Your task to perform on an android device: snooze an email in the gmail app Image 0: 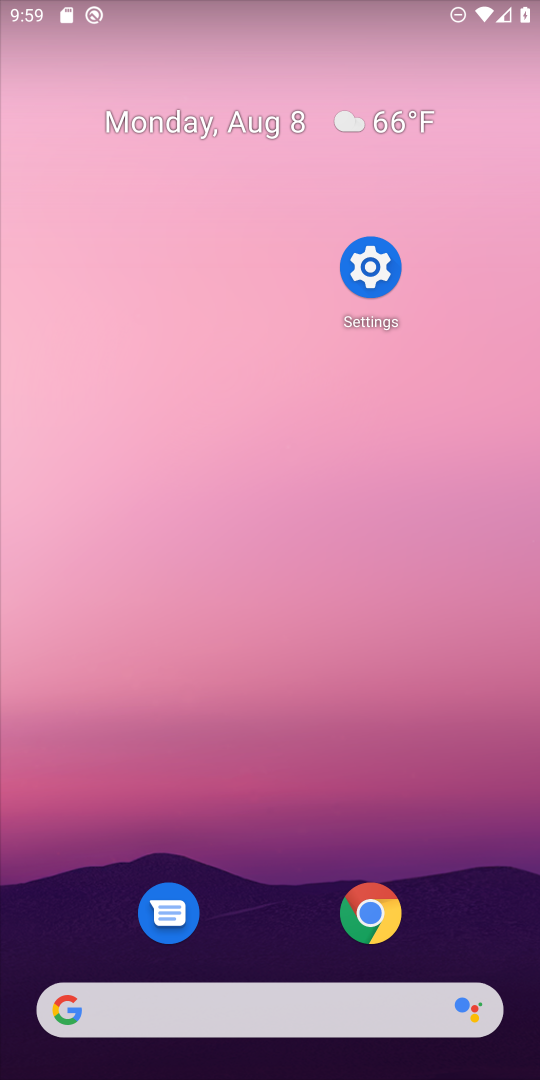
Step 0: drag from (291, 1002) to (252, 134)
Your task to perform on an android device: snooze an email in the gmail app Image 1: 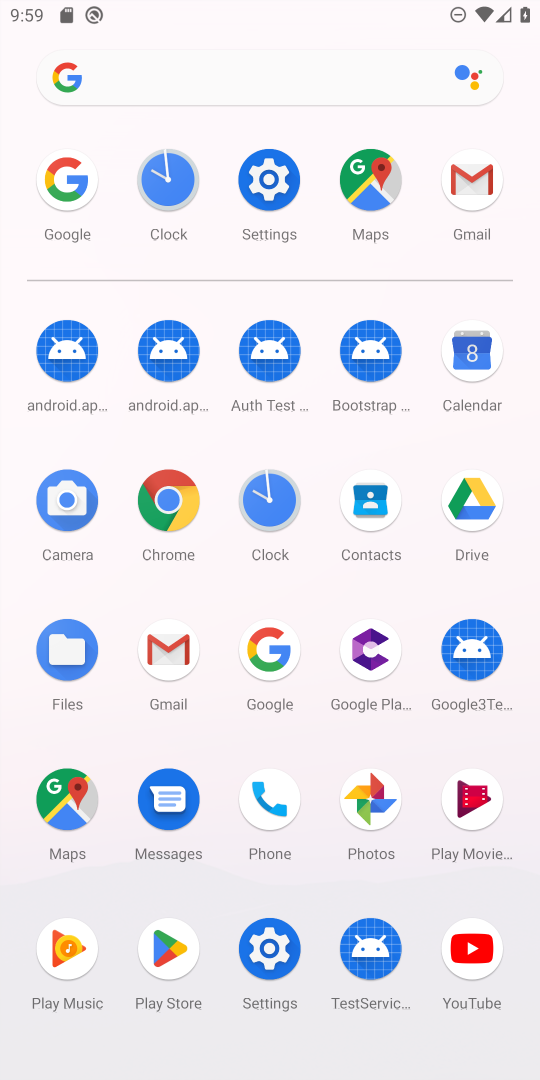
Step 1: click (472, 181)
Your task to perform on an android device: snooze an email in the gmail app Image 2: 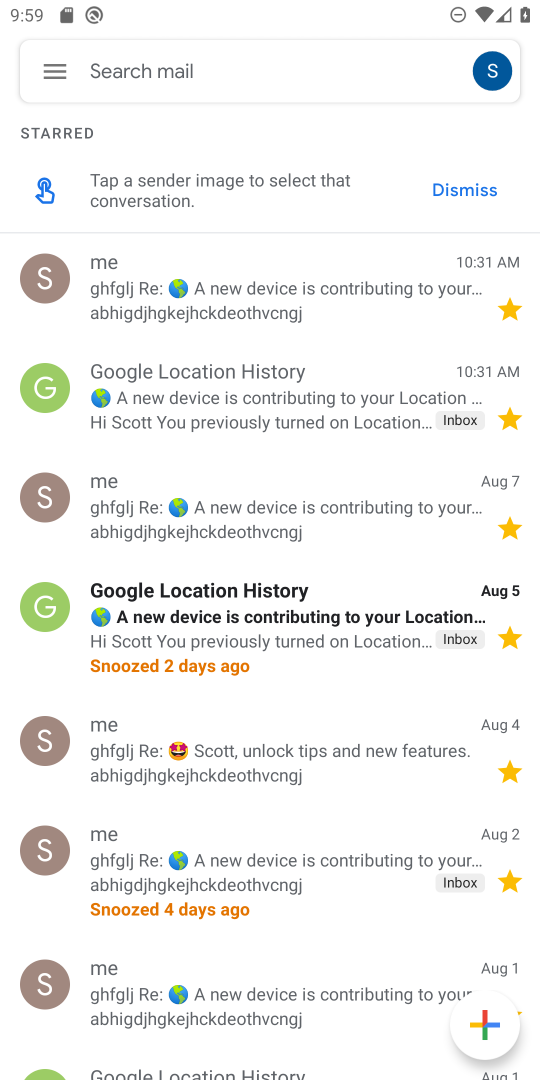
Step 2: click (51, 70)
Your task to perform on an android device: snooze an email in the gmail app Image 3: 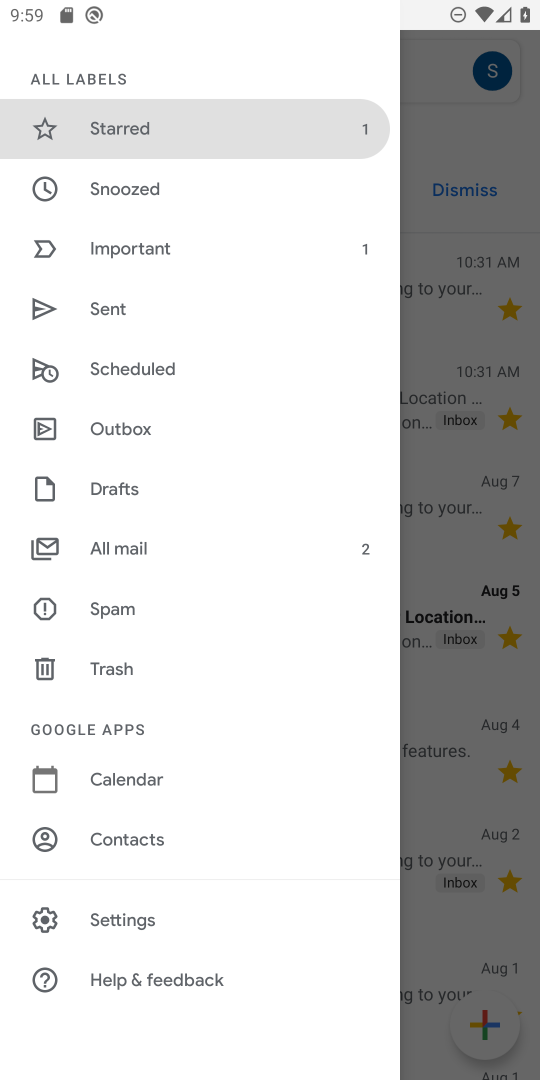
Step 3: click (111, 530)
Your task to perform on an android device: snooze an email in the gmail app Image 4: 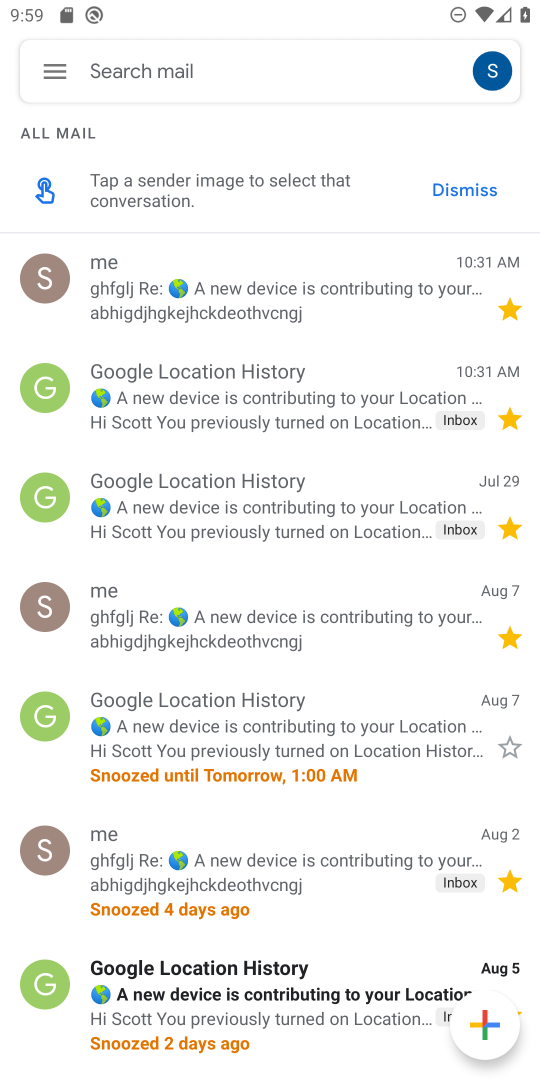
Step 4: click (343, 299)
Your task to perform on an android device: snooze an email in the gmail app Image 5: 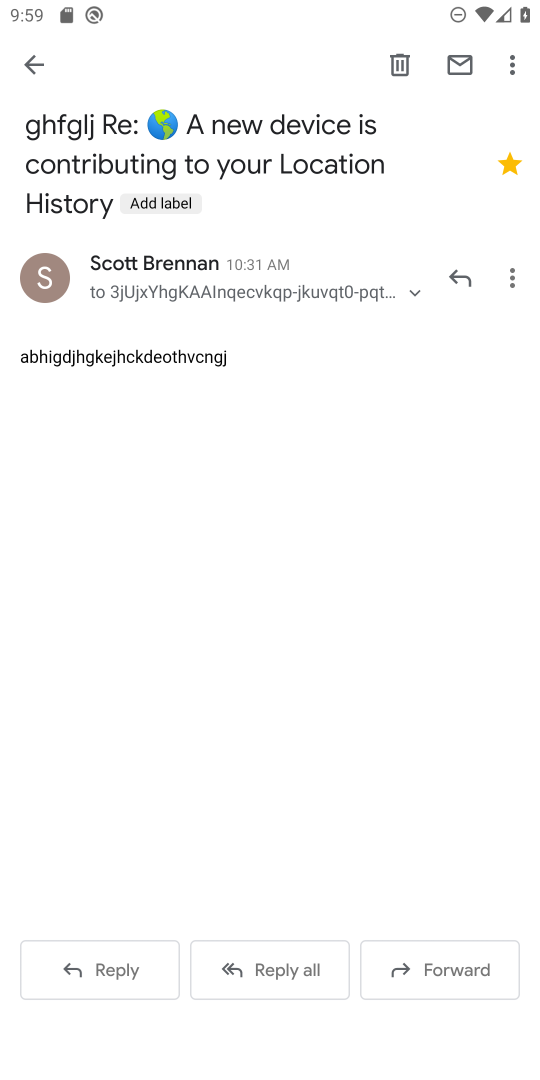
Step 5: click (511, 69)
Your task to perform on an android device: snooze an email in the gmail app Image 6: 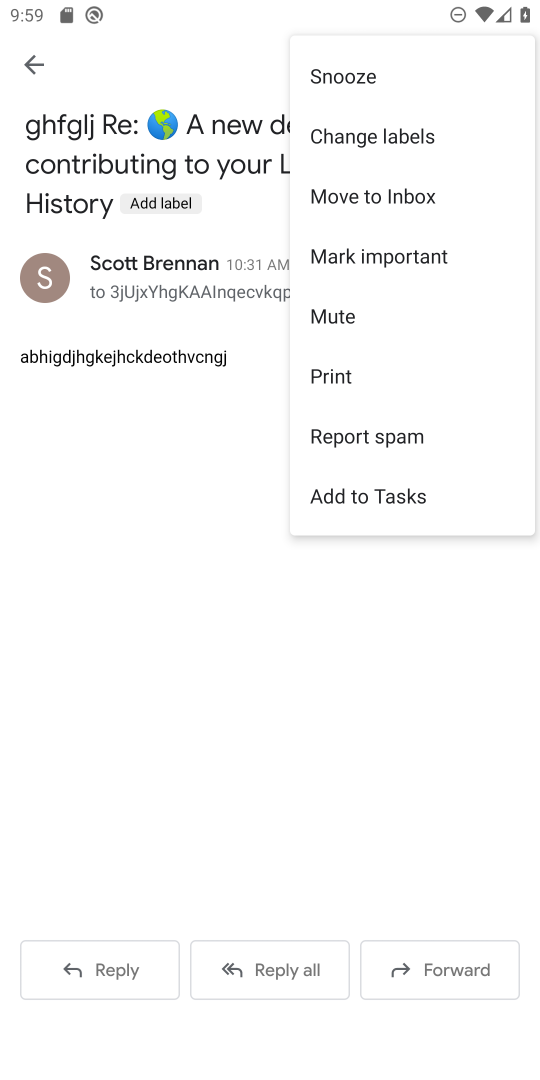
Step 6: click (365, 78)
Your task to perform on an android device: snooze an email in the gmail app Image 7: 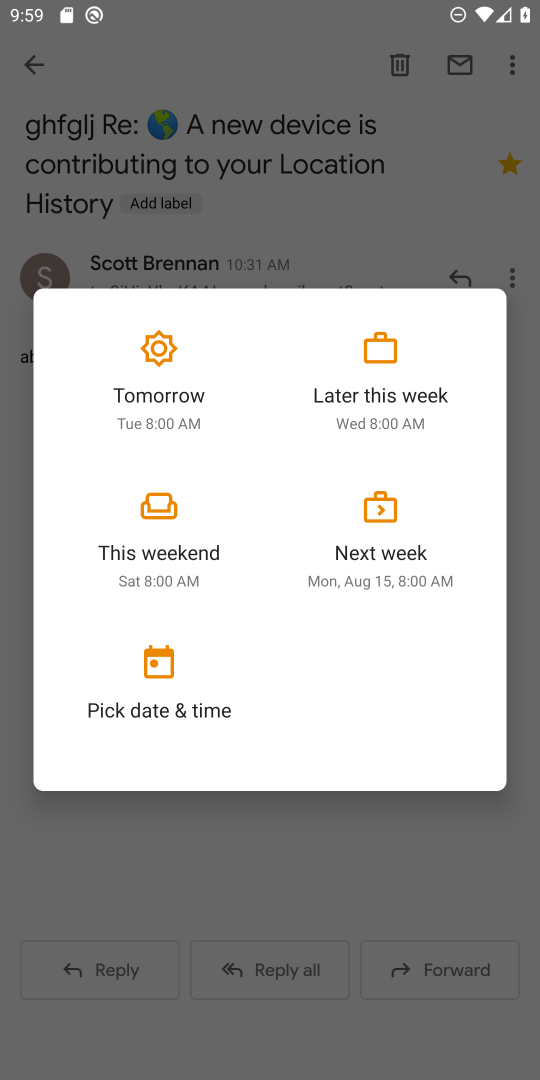
Step 7: click (146, 391)
Your task to perform on an android device: snooze an email in the gmail app Image 8: 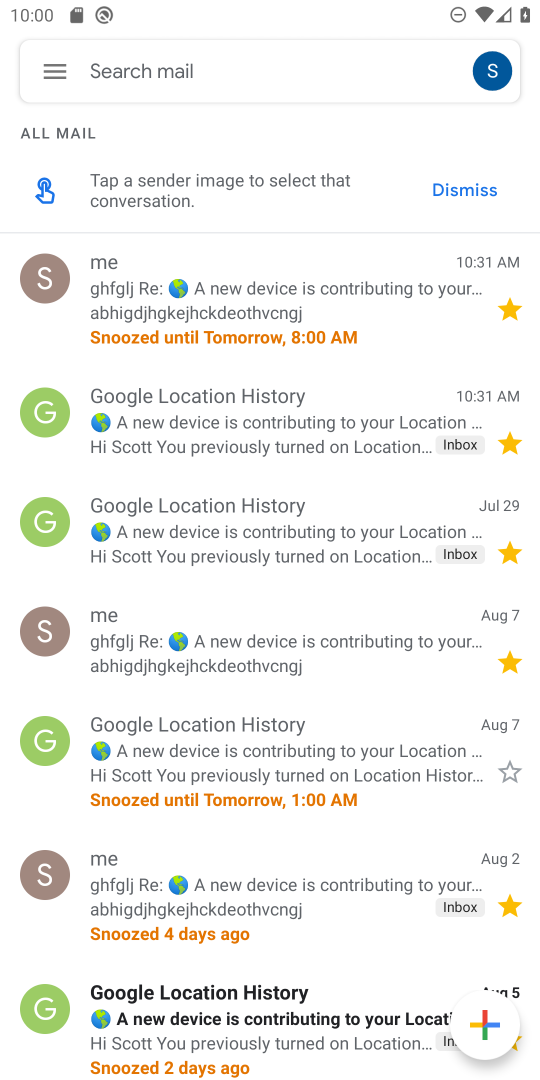
Step 8: task complete